Your task to perform on an android device: change notifications settings Image 0: 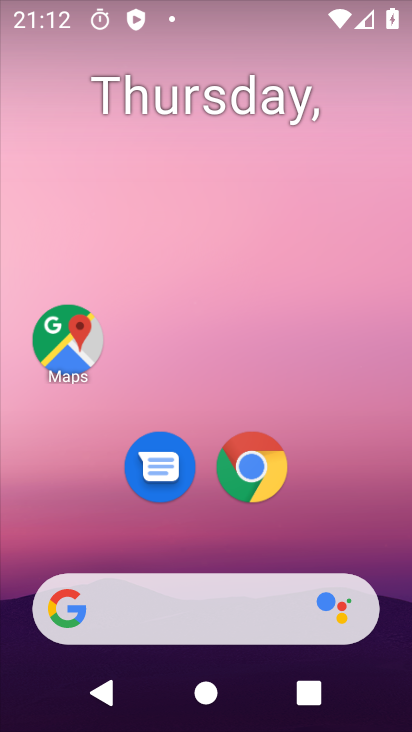
Step 0: drag from (334, 534) to (350, 99)
Your task to perform on an android device: change notifications settings Image 1: 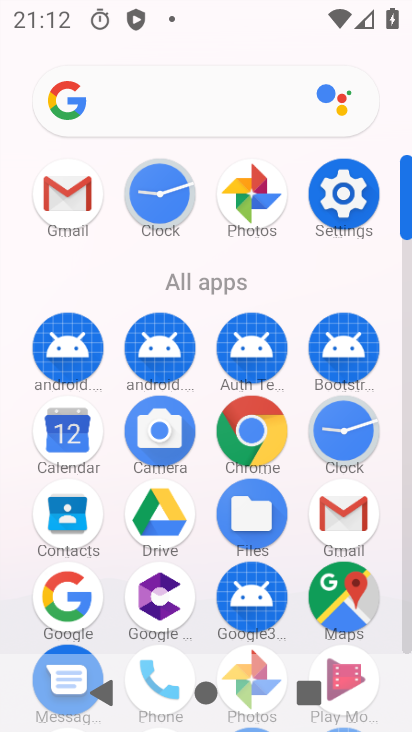
Step 1: click (335, 186)
Your task to perform on an android device: change notifications settings Image 2: 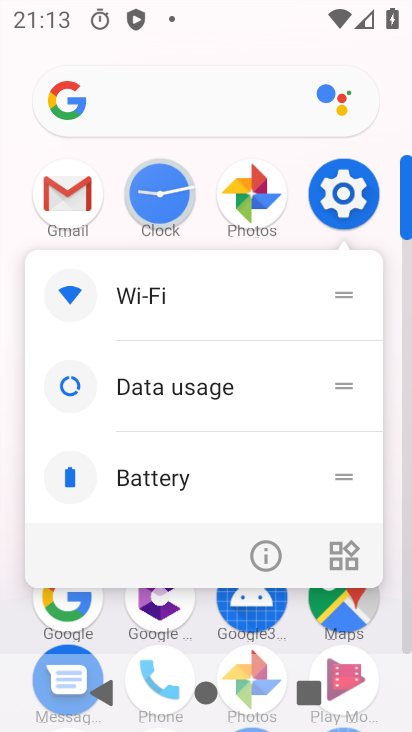
Step 2: click (356, 199)
Your task to perform on an android device: change notifications settings Image 3: 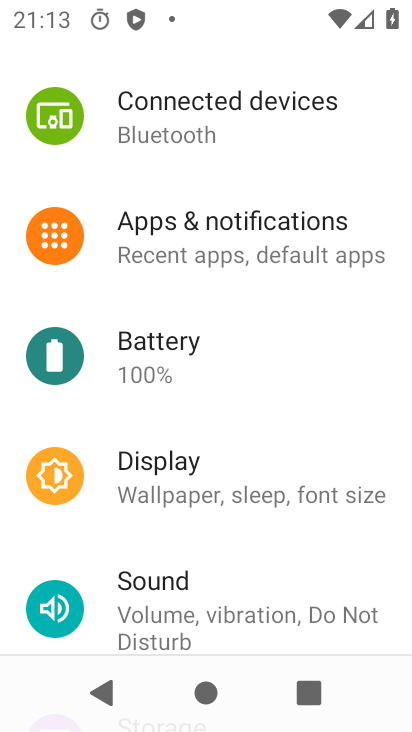
Step 3: click (255, 606)
Your task to perform on an android device: change notifications settings Image 4: 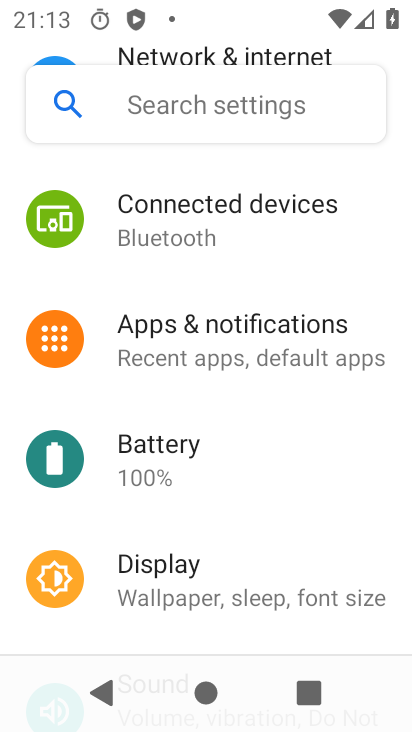
Step 4: click (230, 348)
Your task to perform on an android device: change notifications settings Image 5: 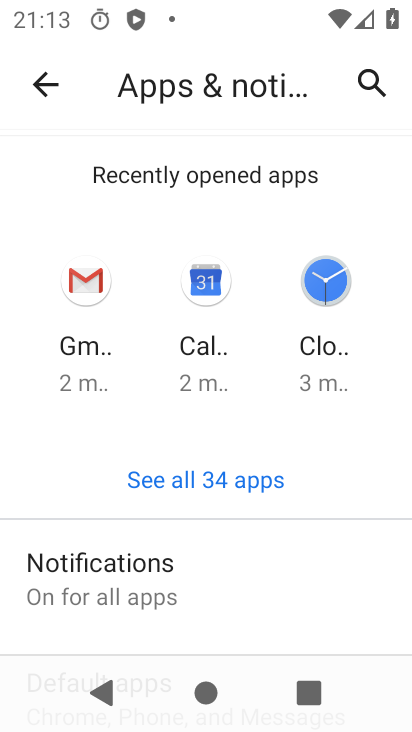
Step 5: drag from (235, 574) to (262, 212)
Your task to perform on an android device: change notifications settings Image 6: 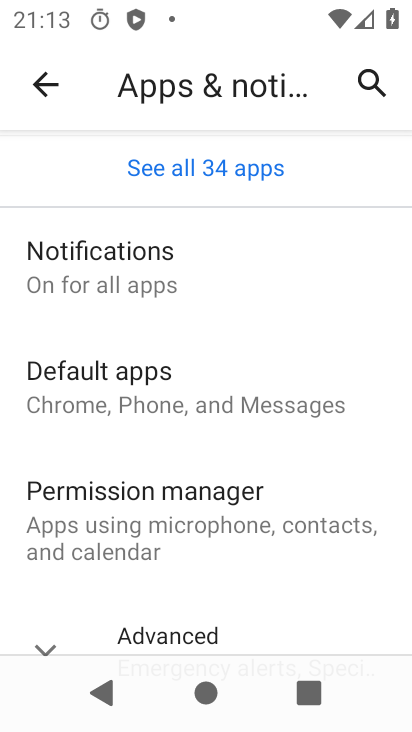
Step 6: click (160, 287)
Your task to perform on an android device: change notifications settings Image 7: 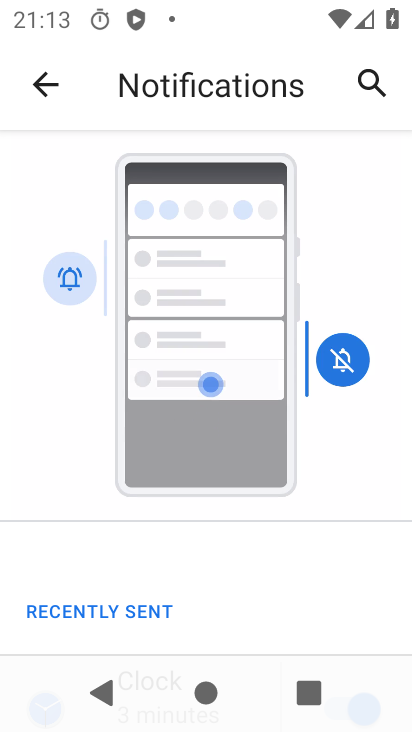
Step 7: drag from (281, 599) to (281, 198)
Your task to perform on an android device: change notifications settings Image 8: 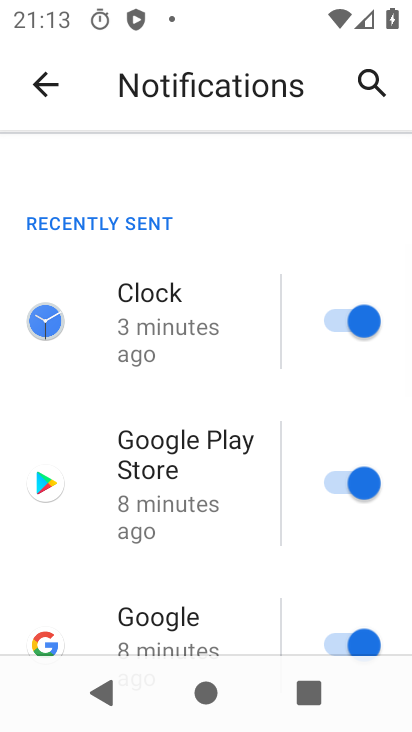
Step 8: drag from (246, 576) to (211, 123)
Your task to perform on an android device: change notifications settings Image 9: 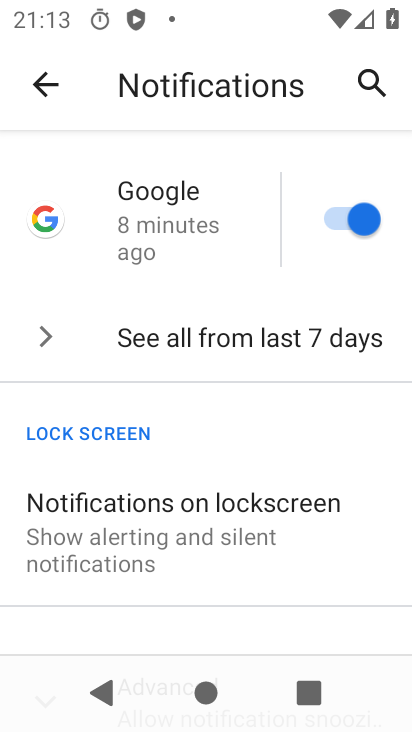
Step 9: drag from (276, 608) to (295, 251)
Your task to perform on an android device: change notifications settings Image 10: 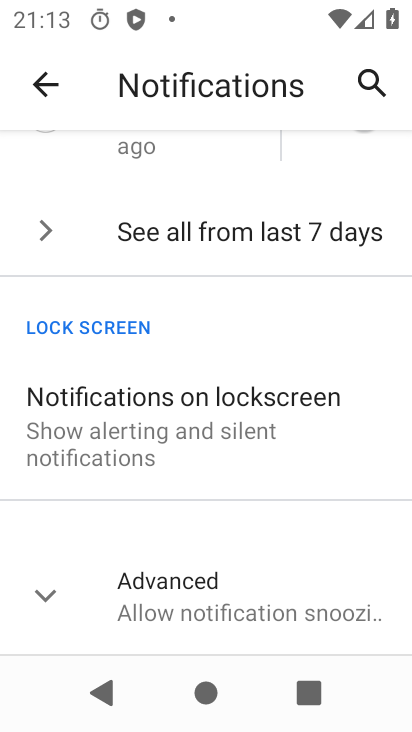
Step 10: click (190, 578)
Your task to perform on an android device: change notifications settings Image 11: 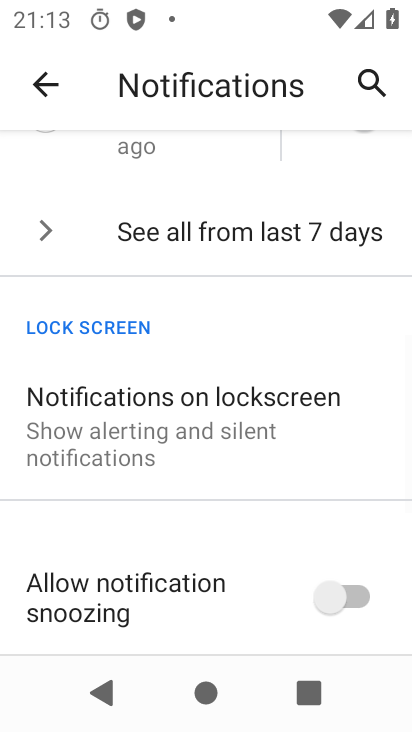
Step 11: drag from (245, 573) to (289, 269)
Your task to perform on an android device: change notifications settings Image 12: 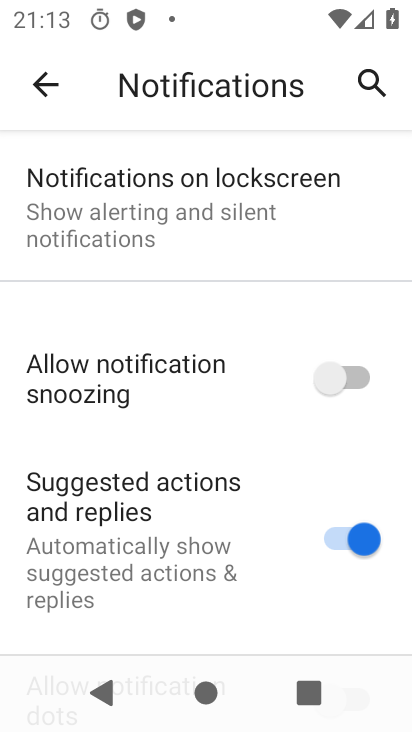
Step 12: click (365, 377)
Your task to perform on an android device: change notifications settings Image 13: 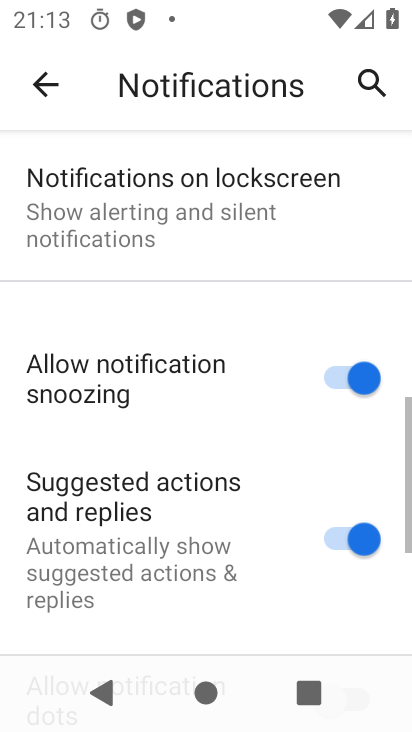
Step 13: task complete